Your task to perform on an android device: search for starred emails in the gmail app Image 0: 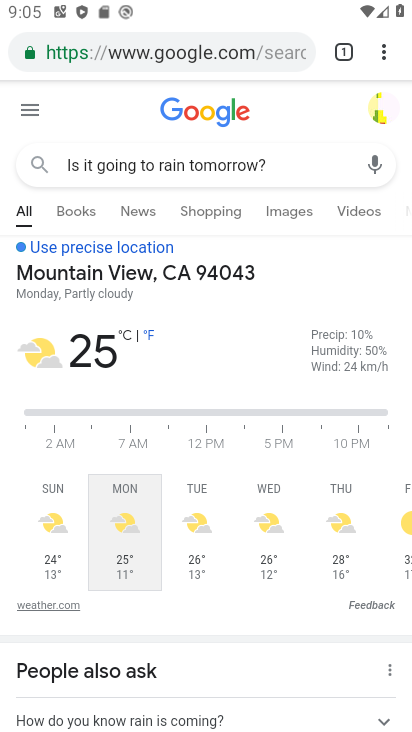
Step 0: press home button
Your task to perform on an android device: search for starred emails in the gmail app Image 1: 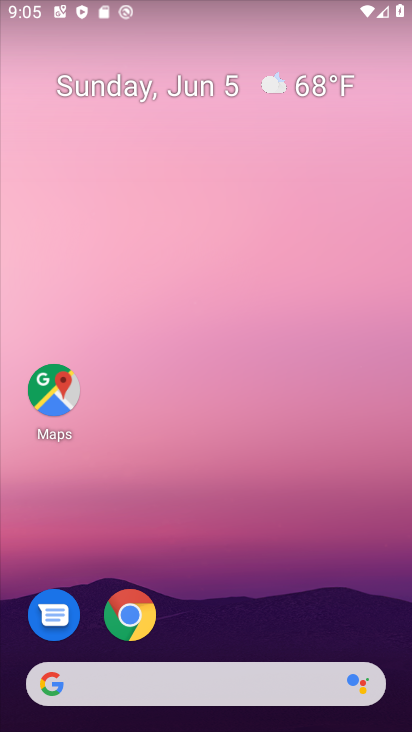
Step 1: drag from (215, 664) to (222, 495)
Your task to perform on an android device: search for starred emails in the gmail app Image 2: 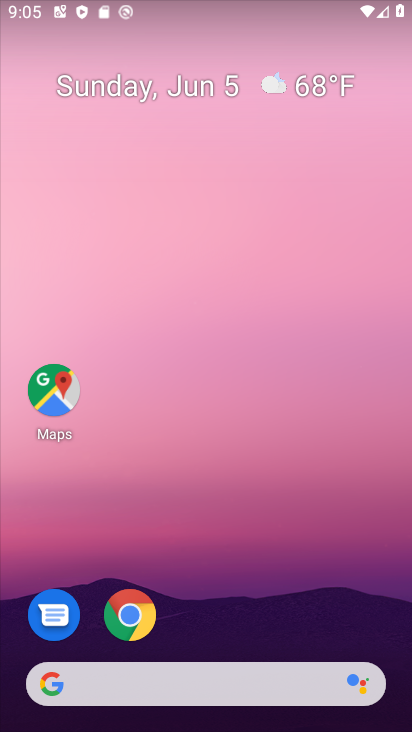
Step 2: drag from (228, 684) to (230, 365)
Your task to perform on an android device: search for starred emails in the gmail app Image 3: 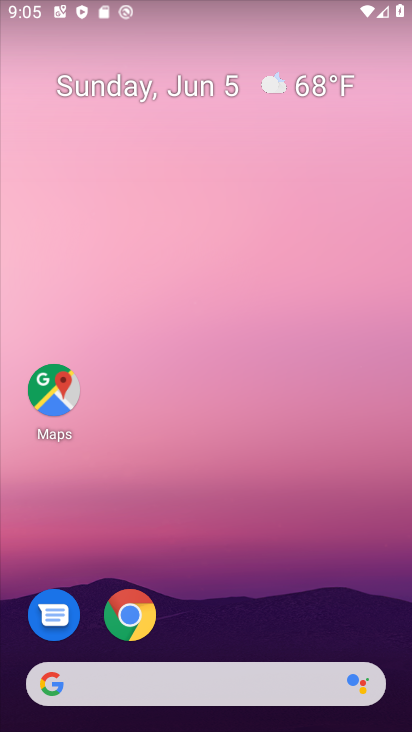
Step 3: drag from (177, 667) to (234, 172)
Your task to perform on an android device: search for starred emails in the gmail app Image 4: 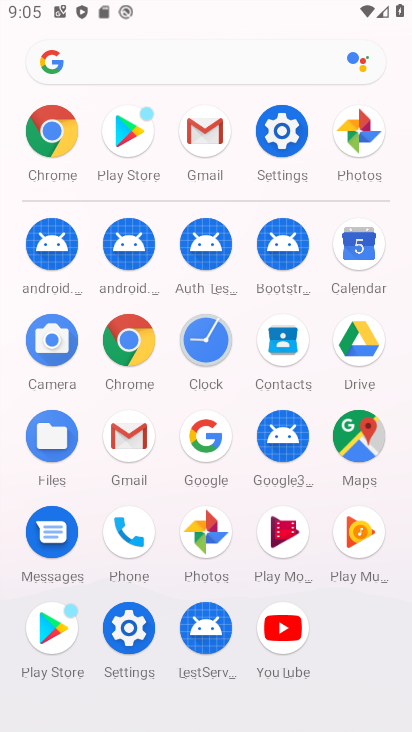
Step 4: click (204, 151)
Your task to perform on an android device: search for starred emails in the gmail app Image 5: 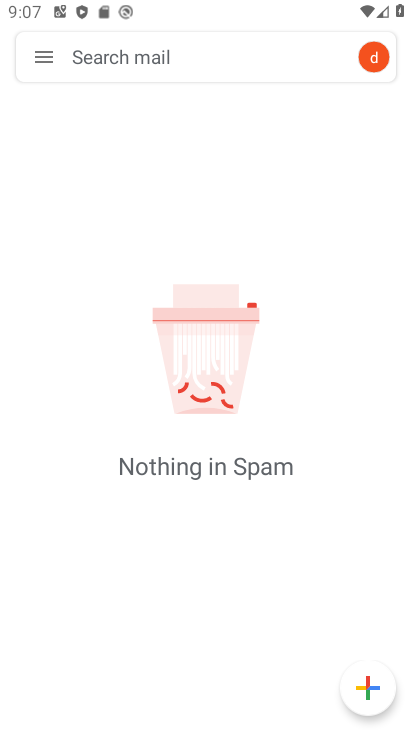
Step 5: click (41, 50)
Your task to perform on an android device: search for starred emails in the gmail app Image 6: 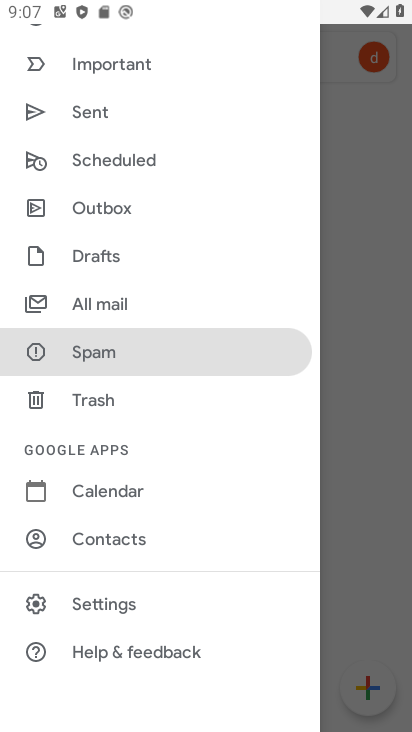
Step 6: drag from (81, 167) to (44, 386)
Your task to perform on an android device: search for starred emails in the gmail app Image 7: 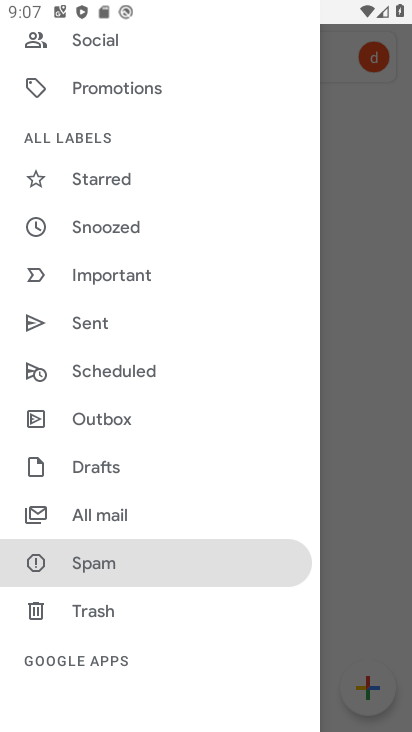
Step 7: click (76, 189)
Your task to perform on an android device: search for starred emails in the gmail app Image 8: 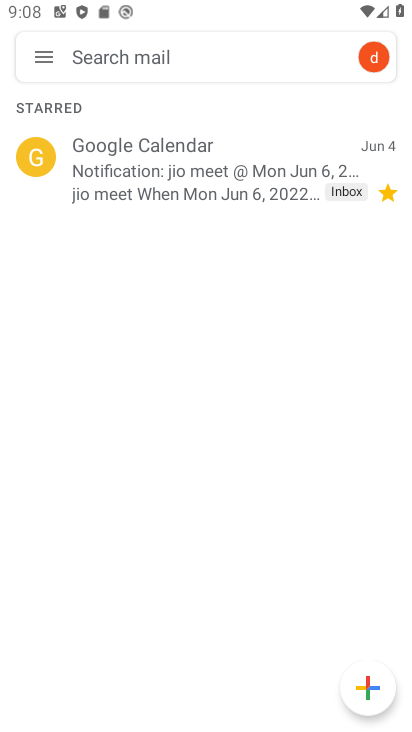
Step 8: task complete